Your task to perform on an android device: open app "Indeed Job Search" (install if not already installed) Image 0: 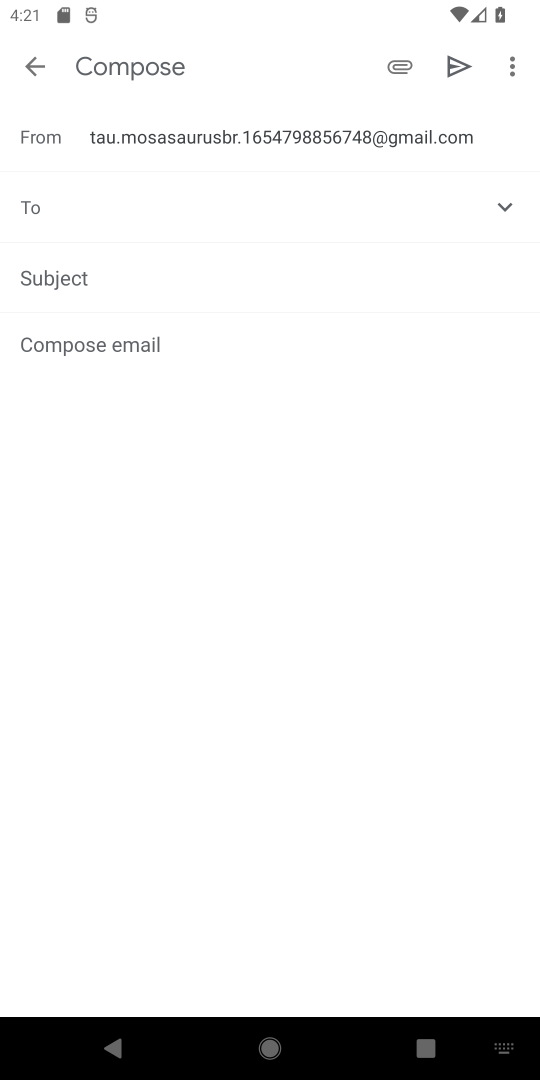
Step 0: press home button
Your task to perform on an android device: open app "Indeed Job Search" (install if not already installed) Image 1: 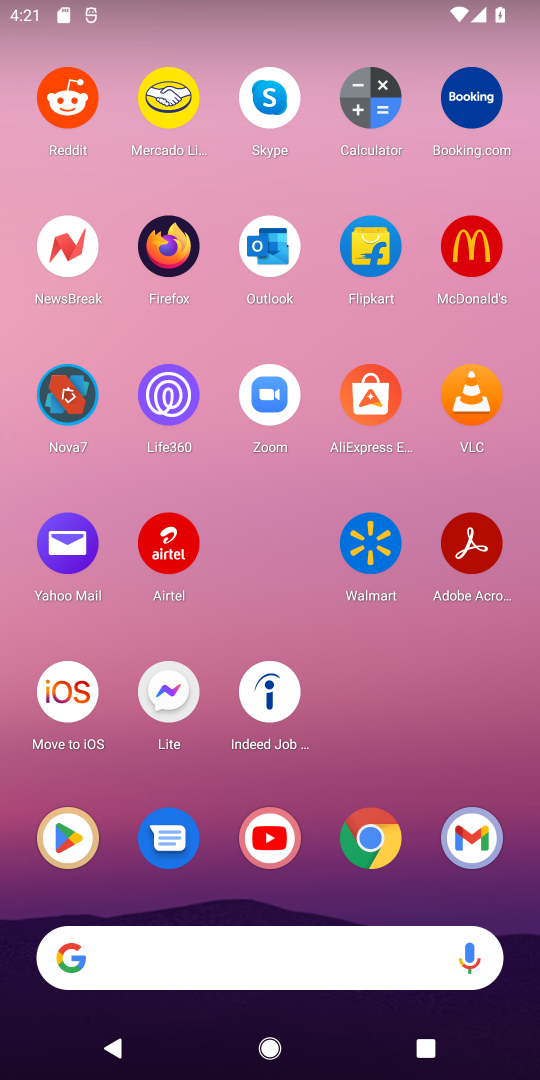
Step 1: click (64, 868)
Your task to perform on an android device: open app "Indeed Job Search" (install if not already installed) Image 2: 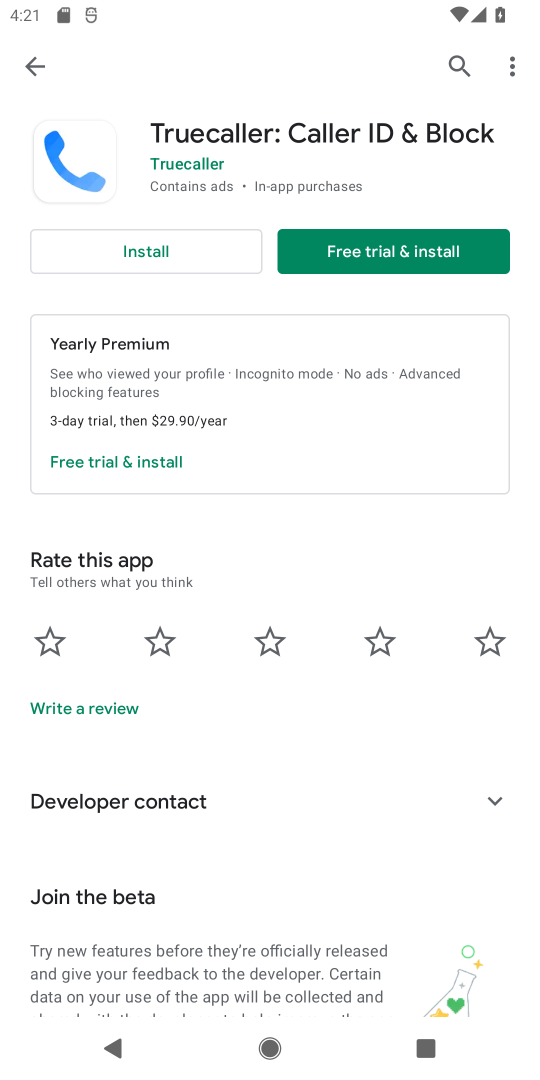
Step 2: click (445, 71)
Your task to perform on an android device: open app "Indeed Job Search" (install if not already installed) Image 3: 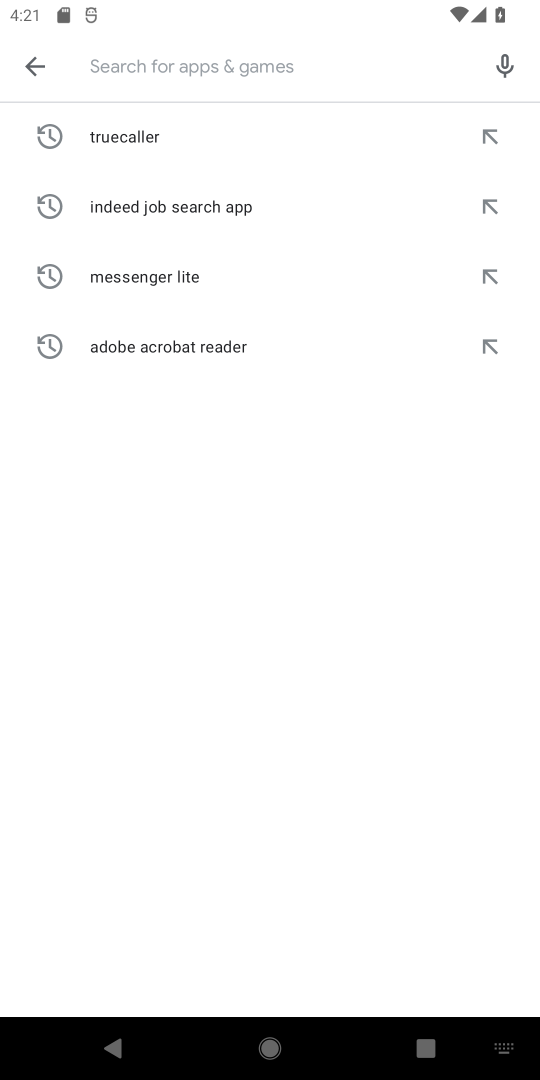
Step 3: click (349, 62)
Your task to perform on an android device: open app "Indeed Job Search" (install if not already installed) Image 4: 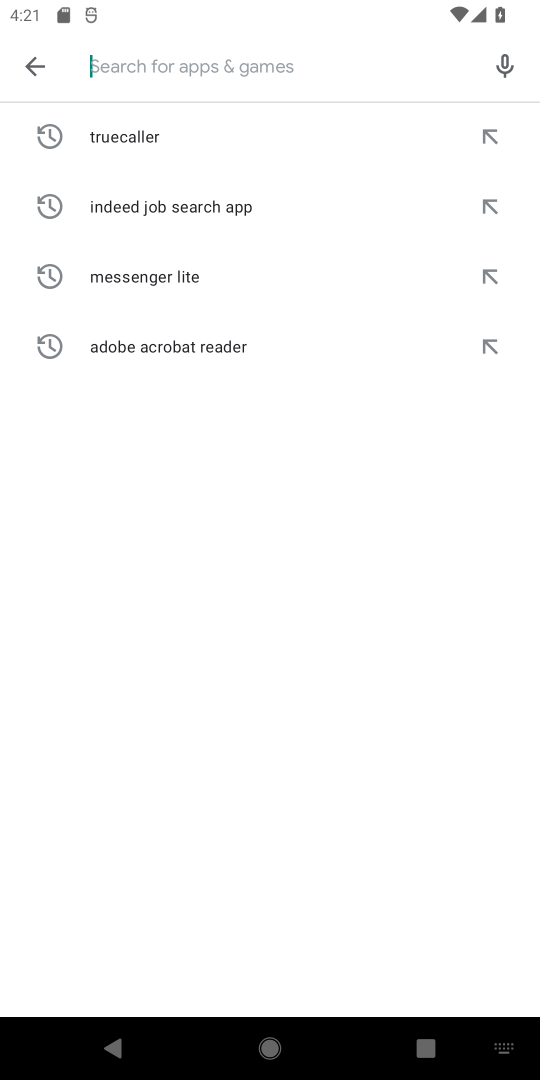
Step 4: type "Indeed Job Search"
Your task to perform on an android device: open app "Indeed Job Search" (install if not already installed) Image 5: 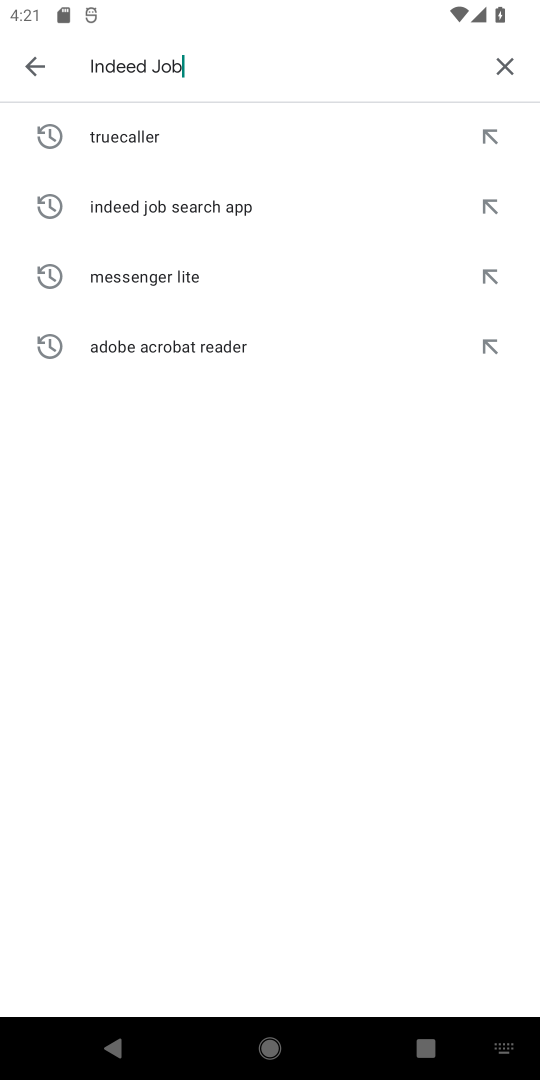
Step 5: type ""
Your task to perform on an android device: open app "Indeed Job Search" (install if not already installed) Image 6: 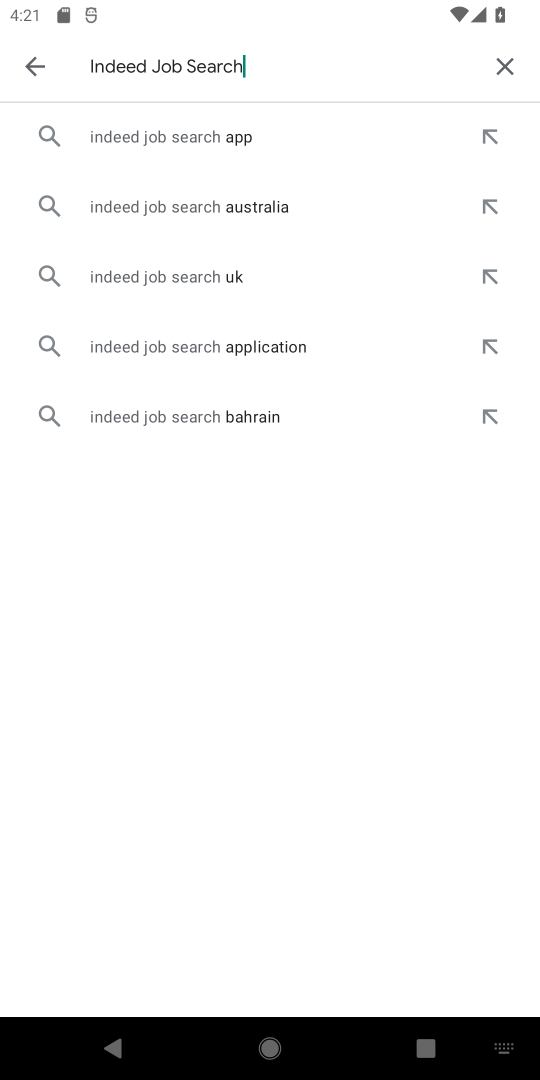
Step 6: click (232, 138)
Your task to perform on an android device: open app "Indeed Job Search" (install if not already installed) Image 7: 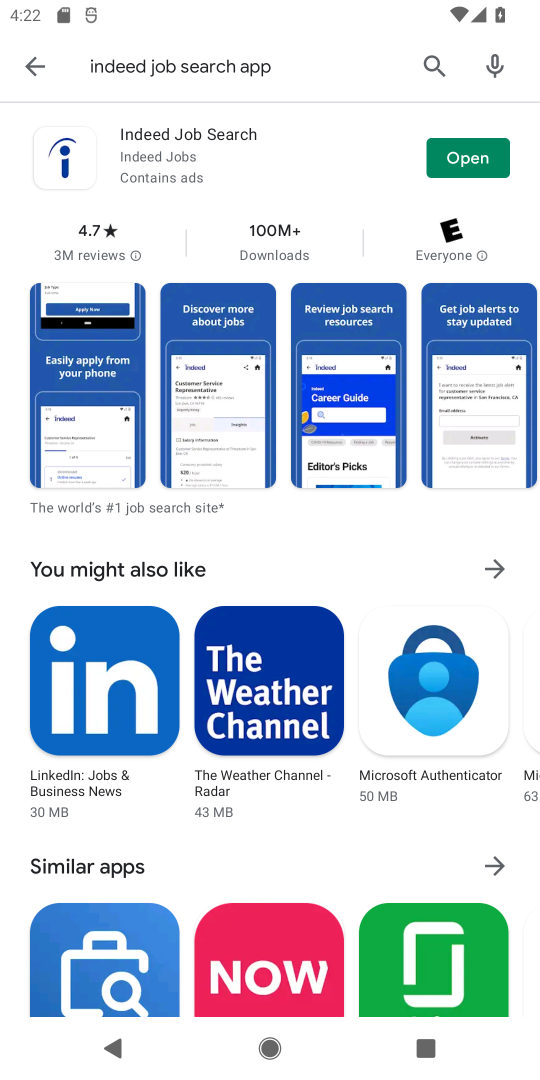
Step 7: click (483, 156)
Your task to perform on an android device: open app "Indeed Job Search" (install if not already installed) Image 8: 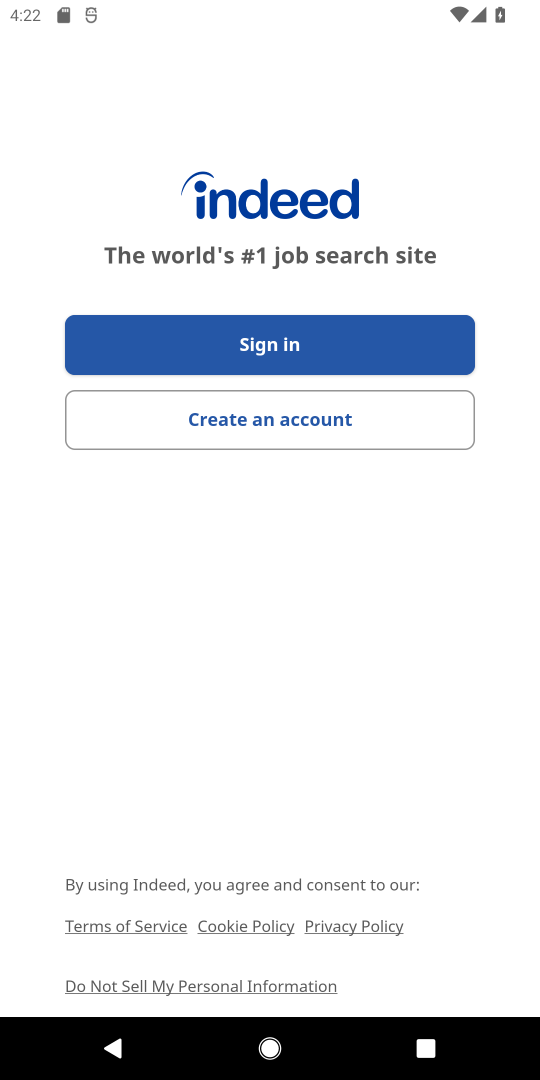
Step 8: task complete